Your task to perform on an android device: Open Google Maps and go to "Timeline" Image 0: 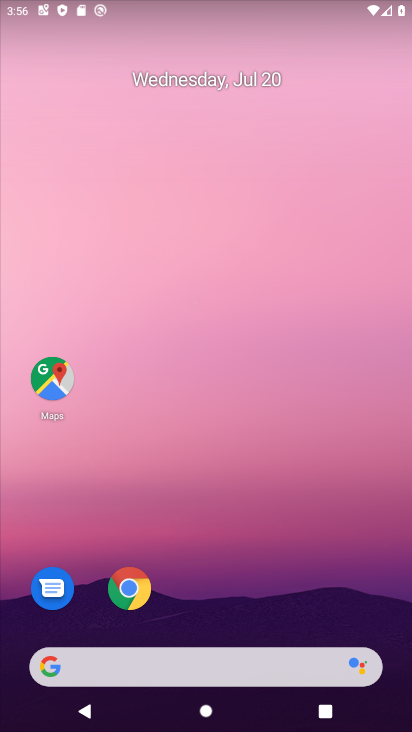
Step 0: drag from (285, 604) to (296, 142)
Your task to perform on an android device: Open Google Maps and go to "Timeline" Image 1: 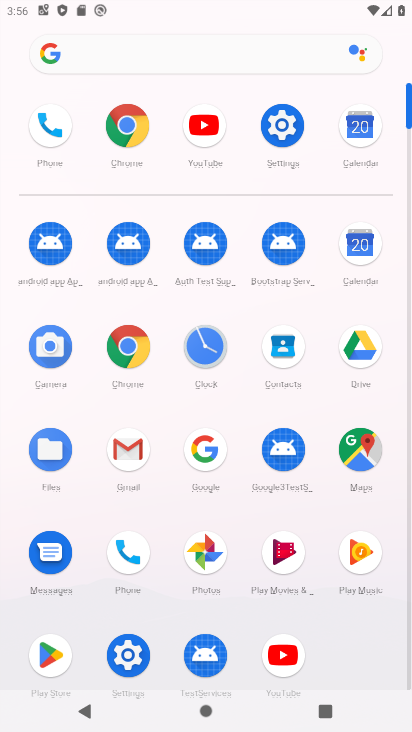
Step 1: click (355, 437)
Your task to perform on an android device: Open Google Maps and go to "Timeline" Image 2: 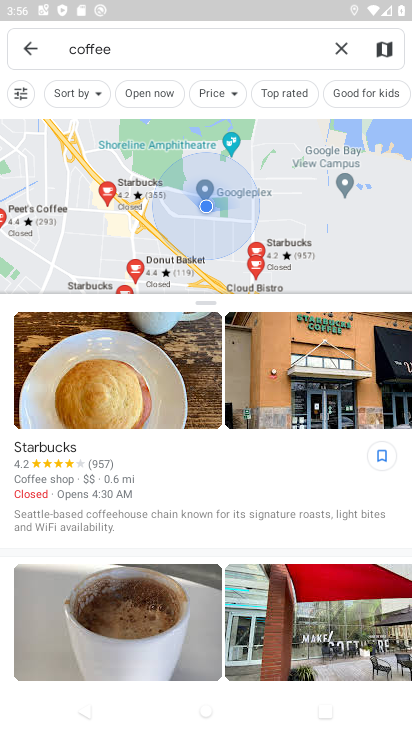
Step 2: click (19, 40)
Your task to perform on an android device: Open Google Maps and go to "Timeline" Image 3: 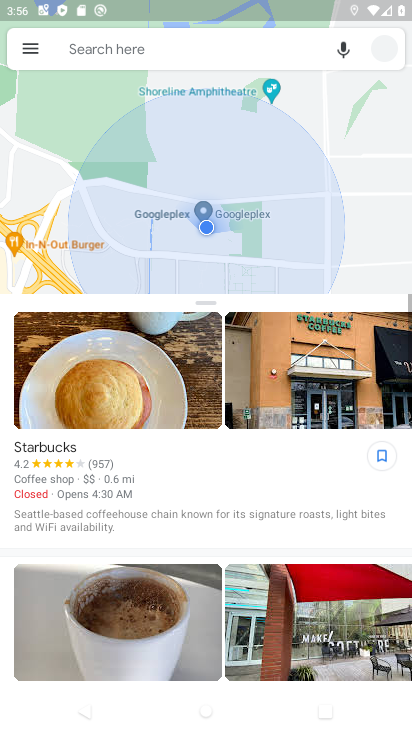
Step 3: click (20, 40)
Your task to perform on an android device: Open Google Maps and go to "Timeline" Image 4: 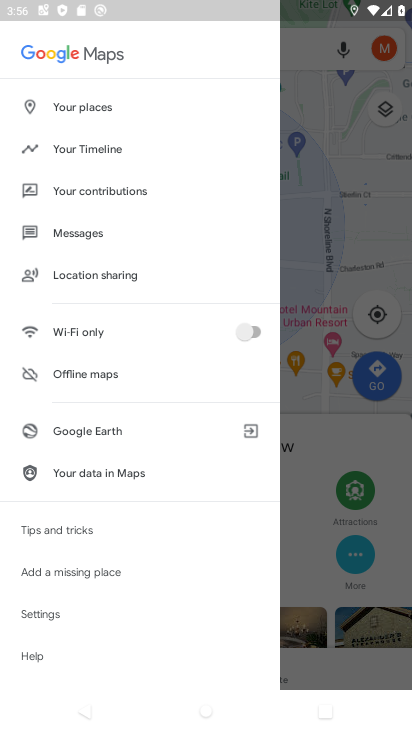
Step 4: click (93, 156)
Your task to perform on an android device: Open Google Maps and go to "Timeline" Image 5: 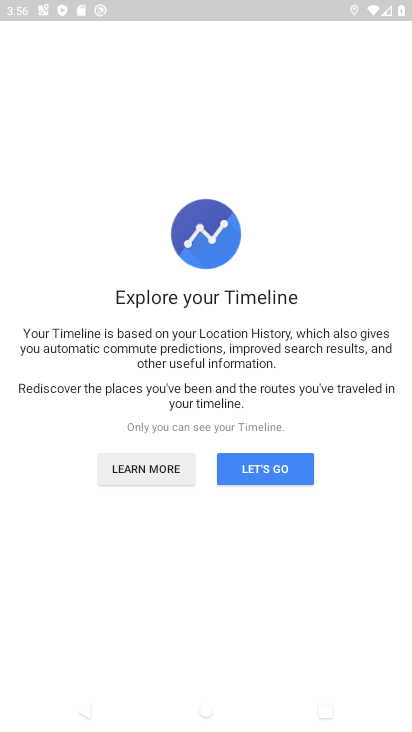
Step 5: click (300, 473)
Your task to perform on an android device: Open Google Maps and go to "Timeline" Image 6: 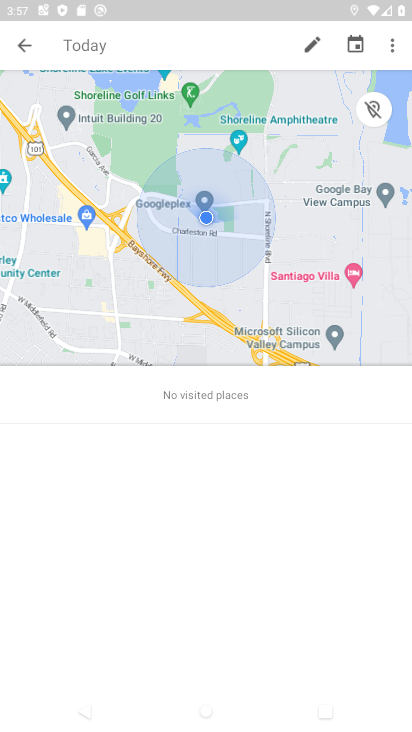
Step 6: task complete